Your task to perform on an android device: Go to notification settings Image 0: 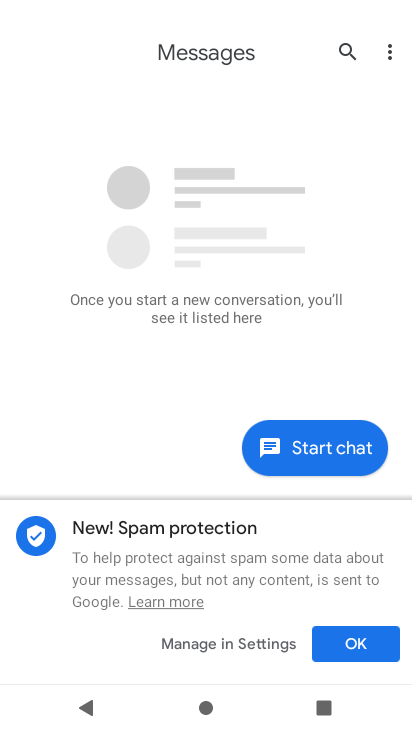
Step 0: press home button
Your task to perform on an android device: Go to notification settings Image 1: 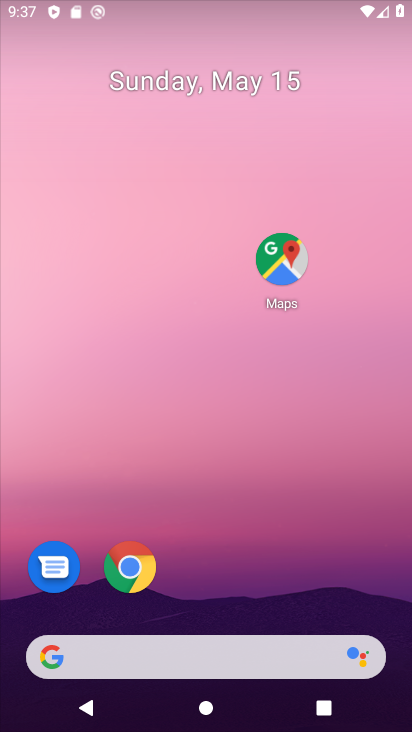
Step 1: drag from (239, 571) to (245, 103)
Your task to perform on an android device: Go to notification settings Image 2: 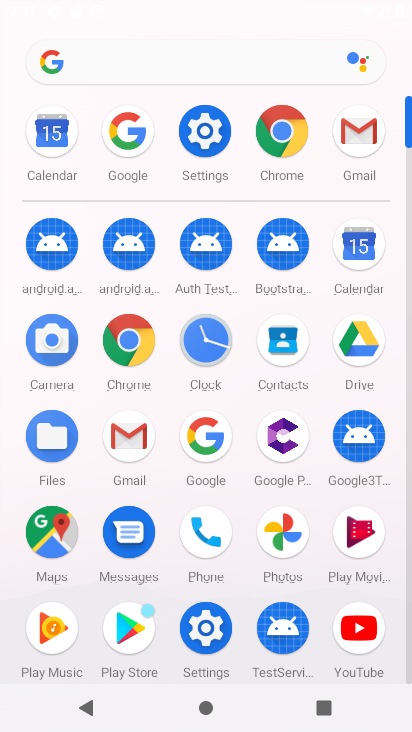
Step 2: click (213, 131)
Your task to perform on an android device: Go to notification settings Image 3: 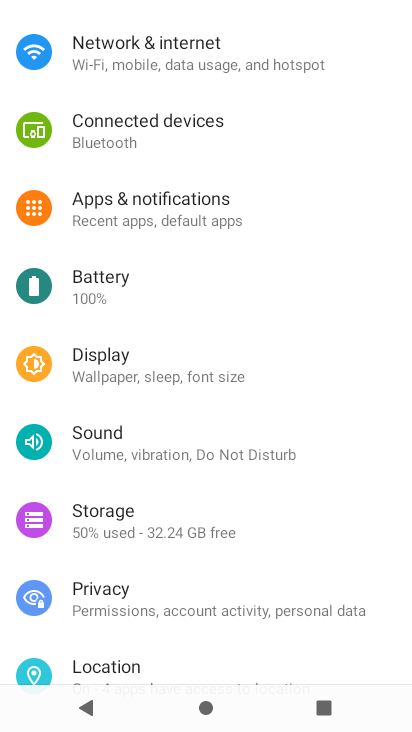
Step 3: click (152, 203)
Your task to perform on an android device: Go to notification settings Image 4: 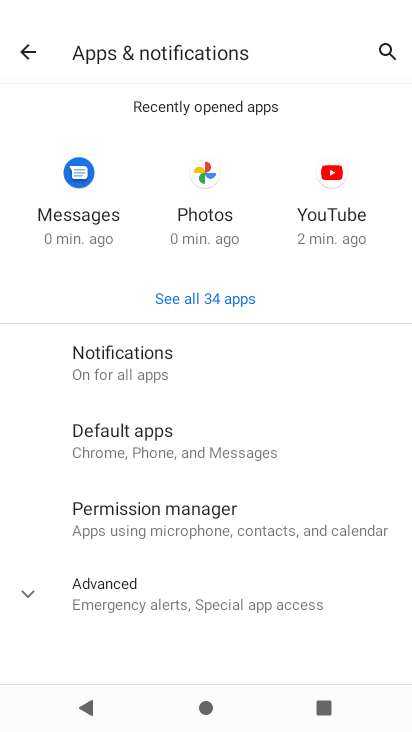
Step 4: click (168, 369)
Your task to perform on an android device: Go to notification settings Image 5: 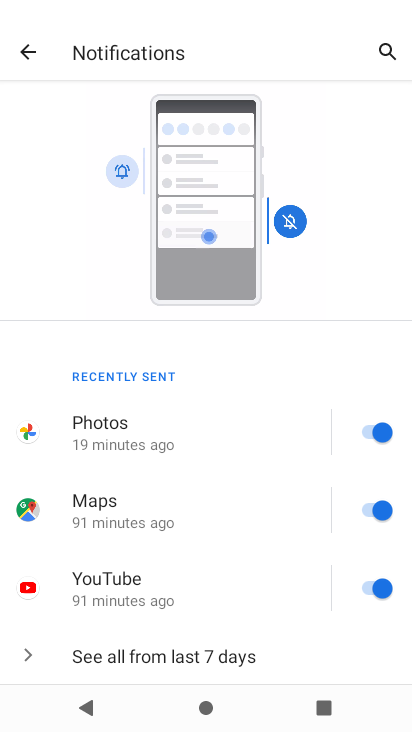
Step 5: drag from (185, 623) to (197, 81)
Your task to perform on an android device: Go to notification settings Image 6: 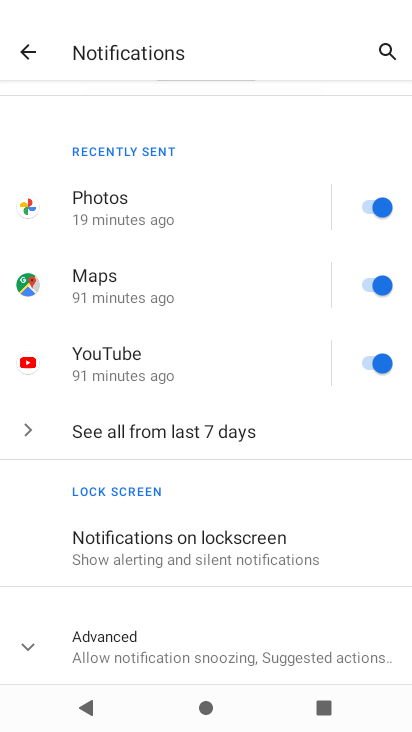
Step 6: click (122, 649)
Your task to perform on an android device: Go to notification settings Image 7: 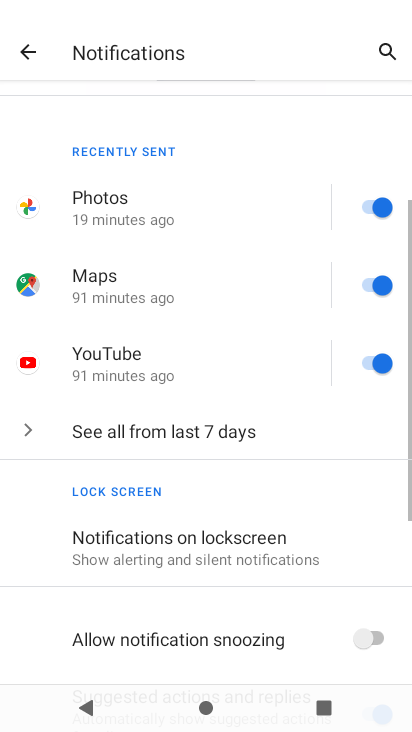
Step 7: task complete